Your task to perform on an android device: turn on translation in the chrome app Image 0: 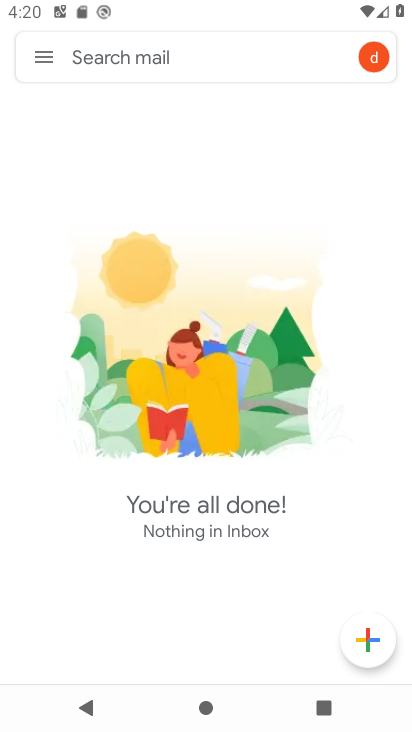
Step 0: press home button
Your task to perform on an android device: turn on translation in the chrome app Image 1: 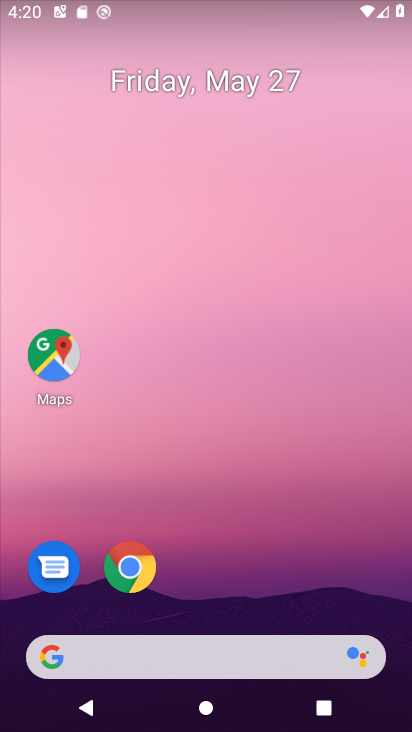
Step 1: click (128, 567)
Your task to perform on an android device: turn on translation in the chrome app Image 2: 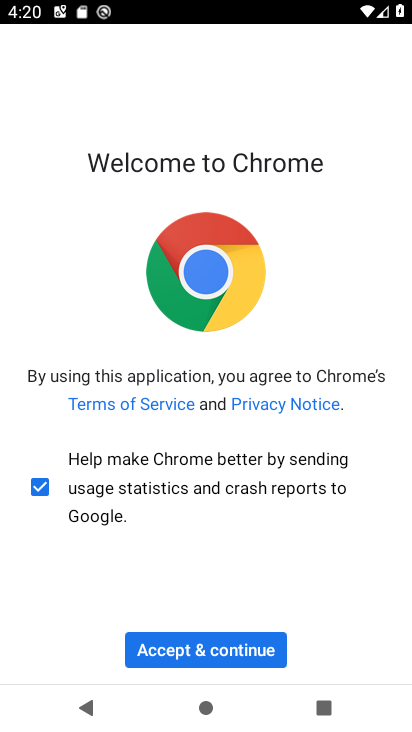
Step 2: click (165, 654)
Your task to perform on an android device: turn on translation in the chrome app Image 3: 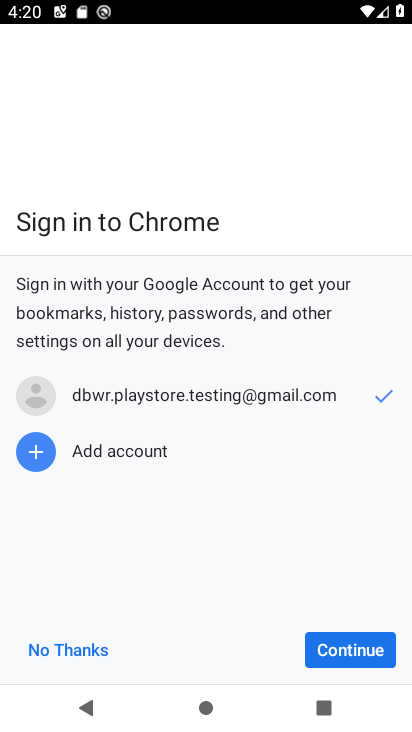
Step 3: click (330, 655)
Your task to perform on an android device: turn on translation in the chrome app Image 4: 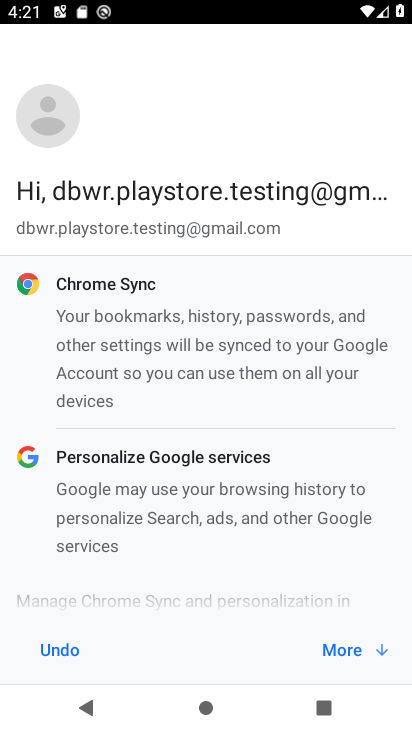
Step 4: click (330, 652)
Your task to perform on an android device: turn on translation in the chrome app Image 5: 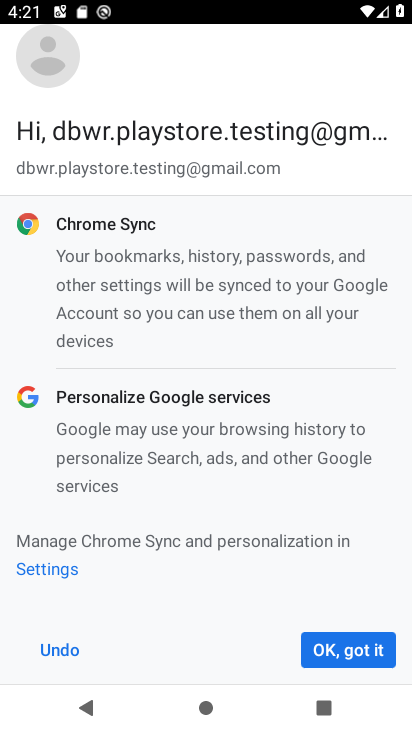
Step 5: click (330, 652)
Your task to perform on an android device: turn on translation in the chrome app Image 6: 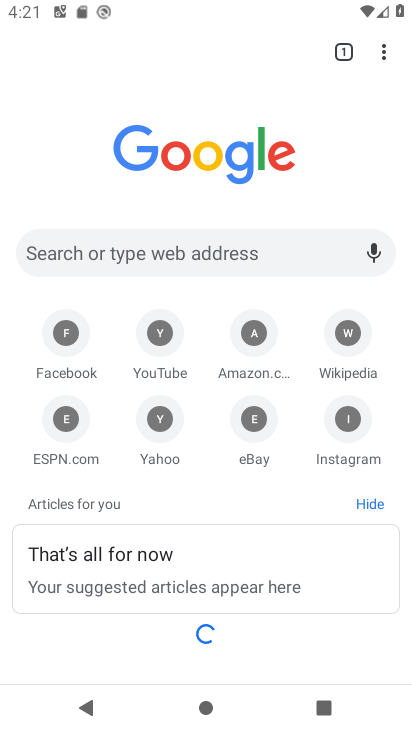
Step 6: click (378, 49)
Your task to perform on an android device: turn on translation in the chrome app Image 7: 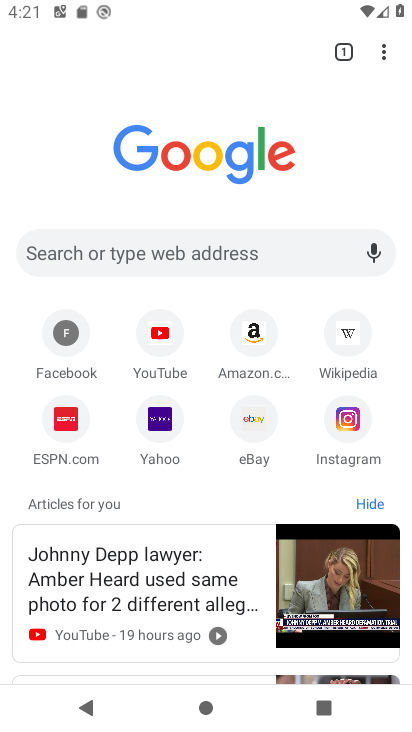
Step 7: click (372, 64)
Your task to perform on an android device: turn on translation in the chrome app Image 8: 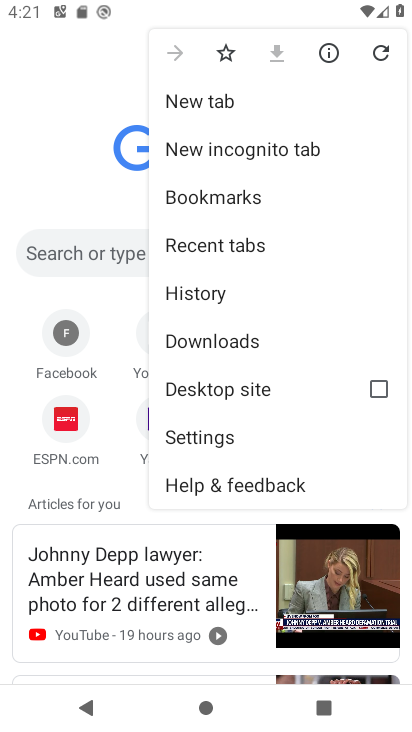
Step 8: click (377, 48)
Your task to perform on an android device: turn on translation in the chrome app Image 9: 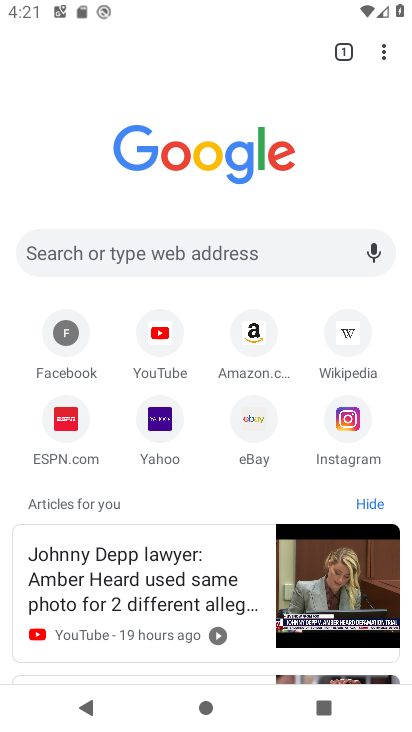
Step 9: click (377, 48)
Your task to perform on an android device: turn on translation in the chrome app Image 10: 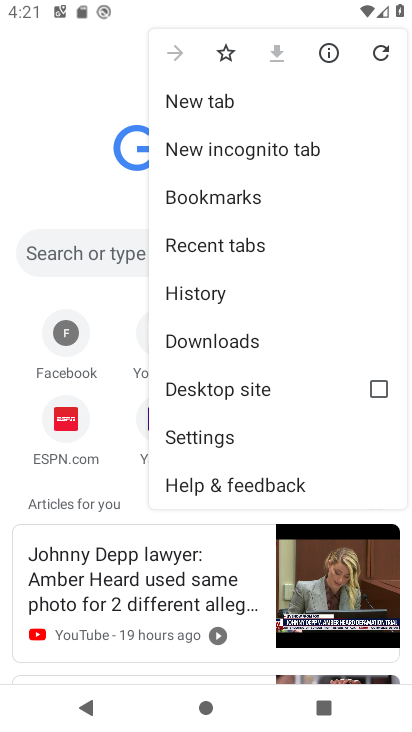
Step 10: click (210, 442)
Your task to perform on an android device: turn on translation in the chrome app Image 11: 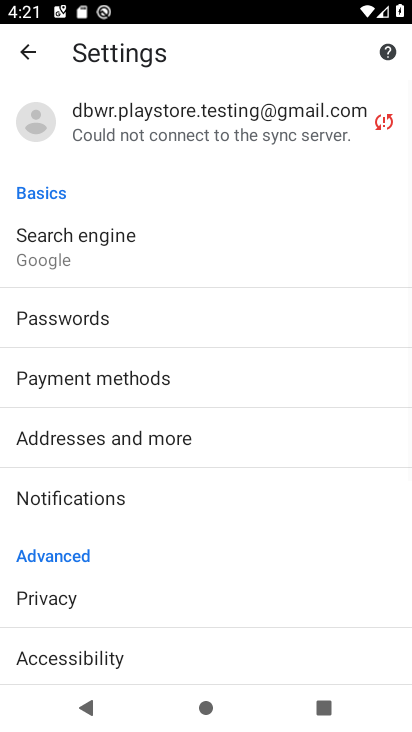
Step 11: drag from (146, 620) to (125, 250)
Your task to perform on an android device: turn on translation in the chrome app Image 12: 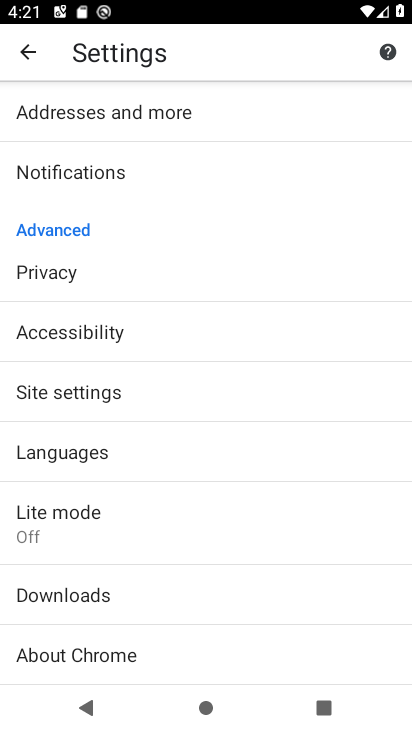
Step 12: click (96, 444)
Your task to perform on an android device: turn on translation in the chrome app Image 13: 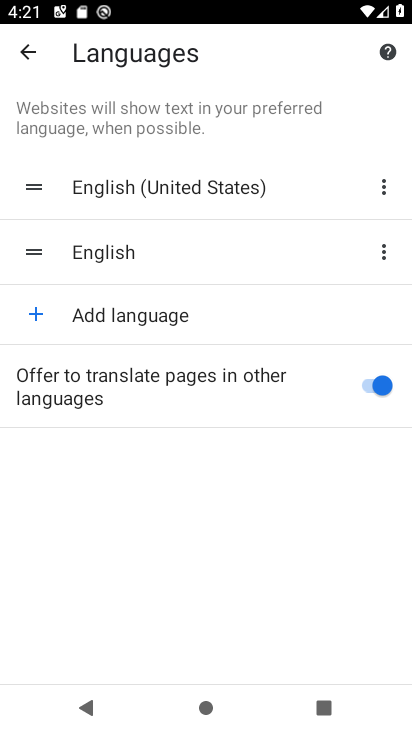
Step 13: task complete